Your task to perform on an android device: See recent photos Image 0: 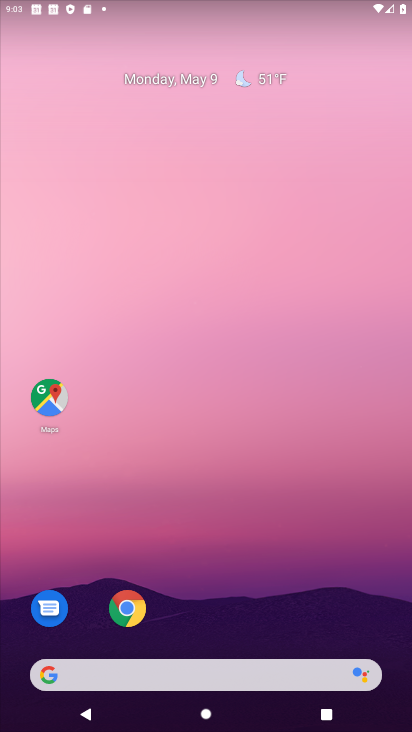
Step 0: drag from (307, 595) to (306, 56)
Your task to perform on an android device: See recent photos Image 1: 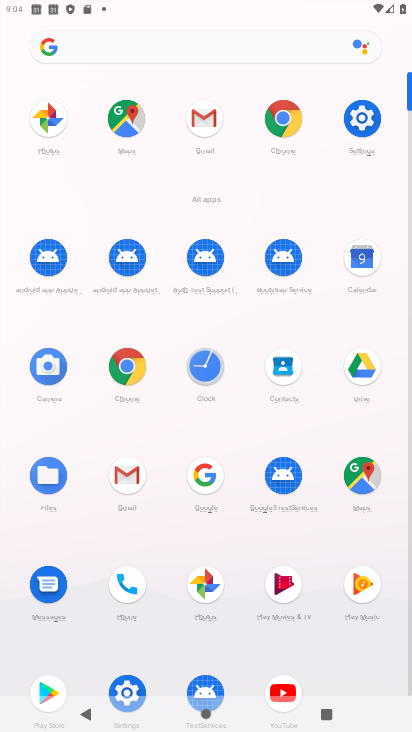
Step 1: click (48, 113)
Your task to perform on an android device: See recent photos Image 2: 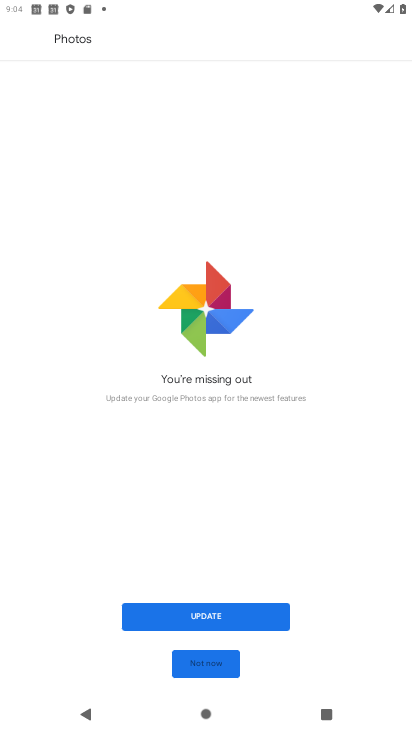
Step 2: click (203, 618)
Your task to perform on an android device: See recent photos Image 3: 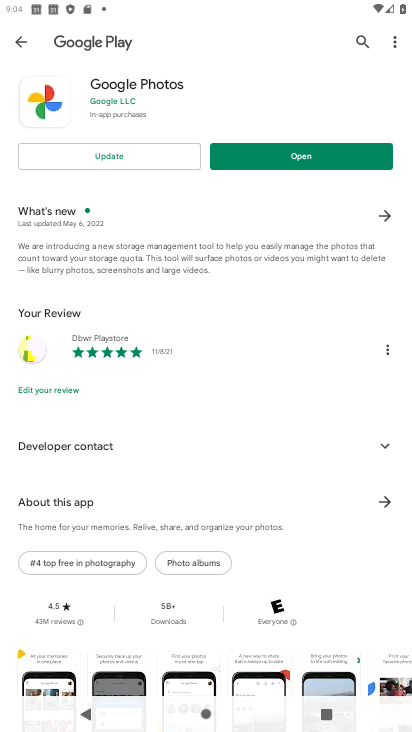
Step 3: click (113, 159)
Your task to perform on an android device: See recent photos Image 4: 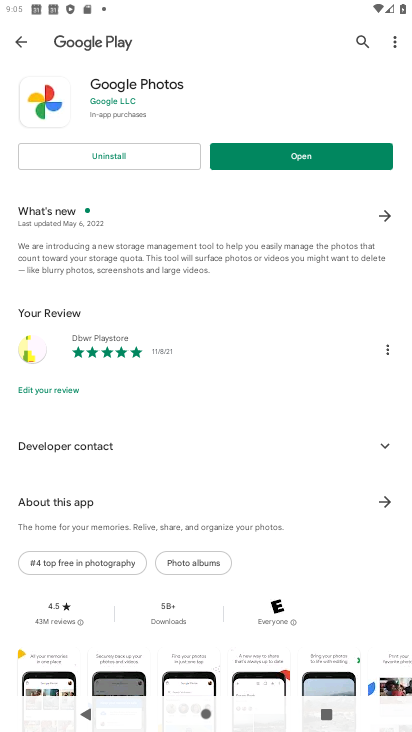
Step 4: click (325, 169)
Your task to perform on an android device: See recent photos Image 5: 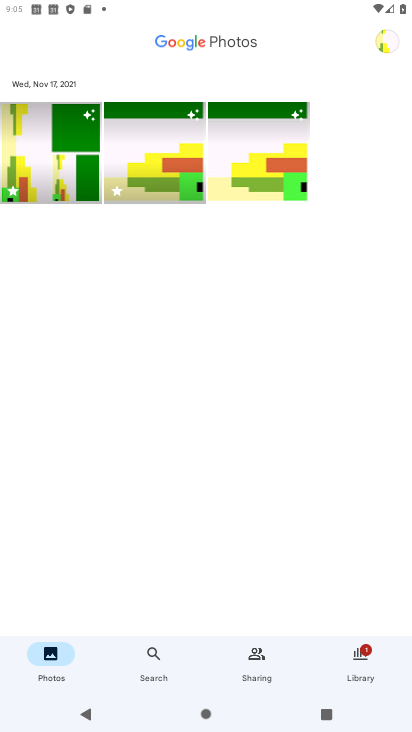
Step 5: click (29, 157)
Your task to perform on an android device: See recent photos Image 6: 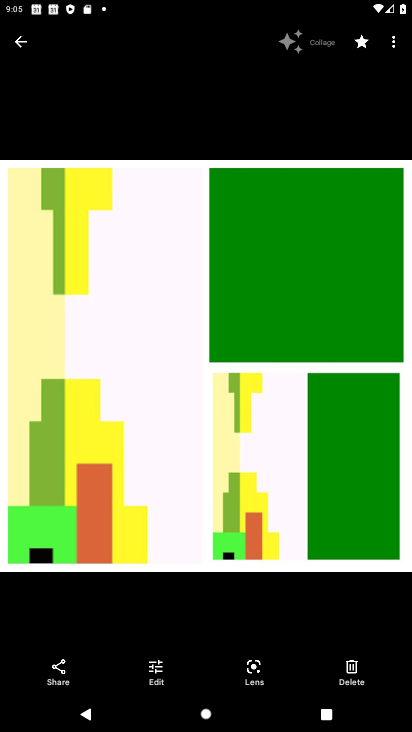
Step 6: task complete